Your task to perform on an android device: Open calendar and show me the first week of next month Image 0: 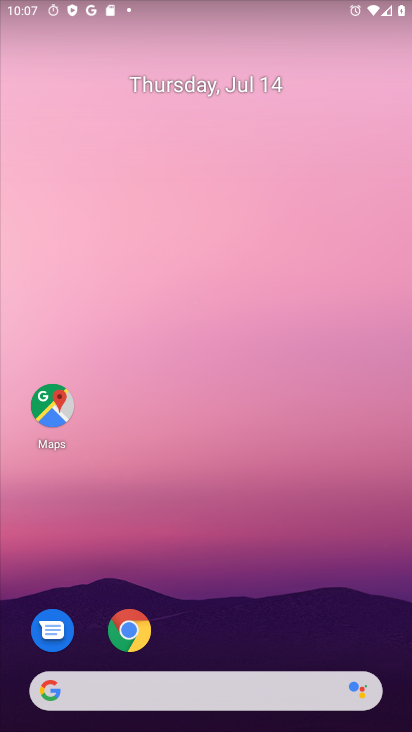
Step 0: drag from (38, 705) to (193, 169)
Your task to perform on an android device: Open calendar and show me the first week of next month Image 1: 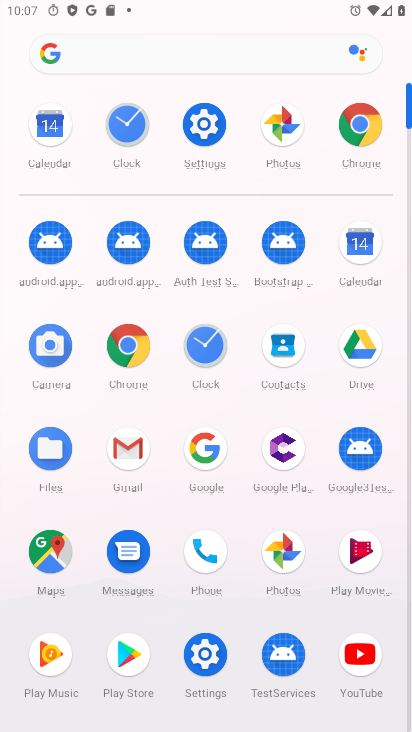
Step 1: click (373, 235)
Your task to perform on an android device: Open calendar and show me the first week of next month Image 2: 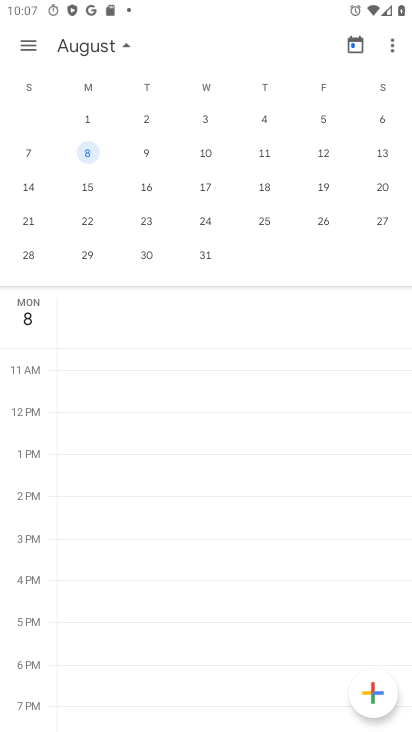
Step 2: click (84, 122)
Your task to perform on an android device: Open calendar and show me the first week of next month Image 3: 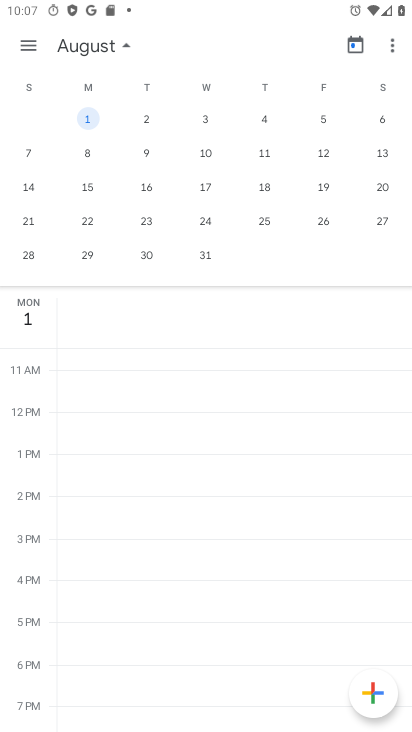
Step 3: task complete